Your task to perform on an android device: Open my contact list Image 0: 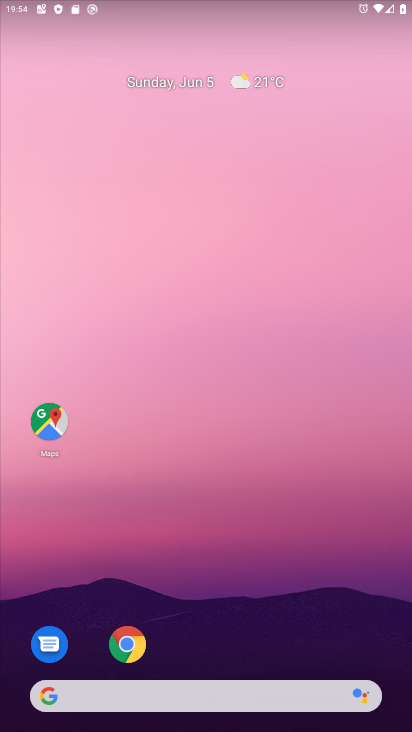
Step 0: drag from (110, 439) to (214, 206)
Your task to perform on an android device: Open my contact list Image 1: 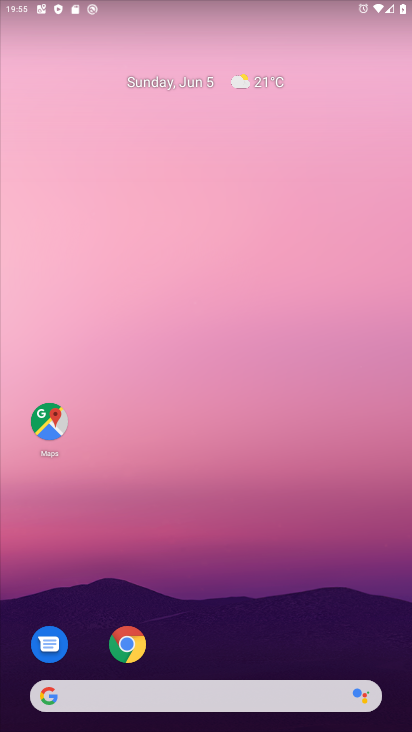
Step 1: press home button
Your task to perform on an android device: Open my contact list Image 2: 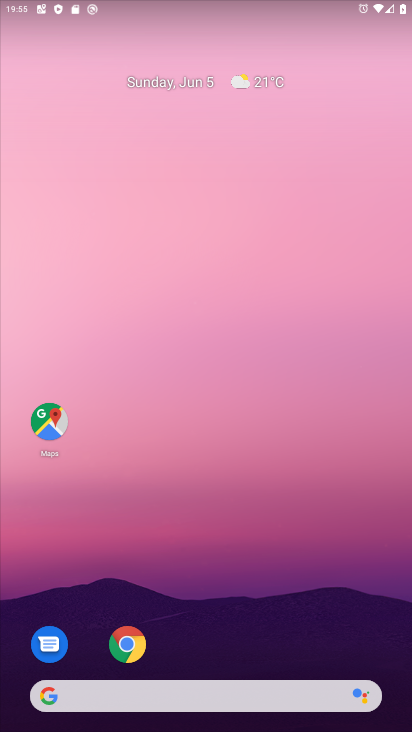
Step 2: drag from (56, 566) to (311, 157)
Your task to perform on an android device: Open my contact list Image 3: 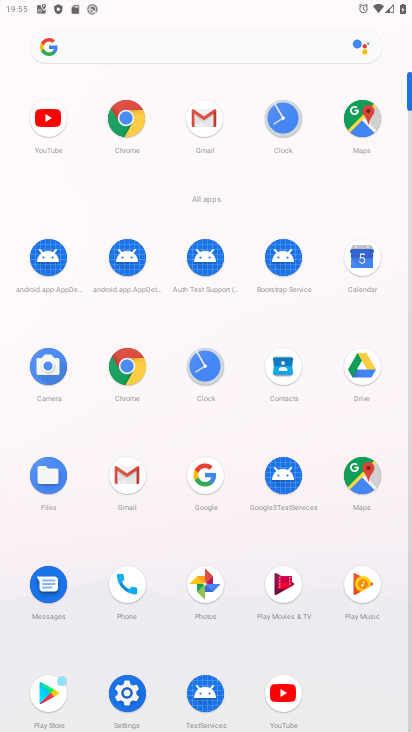
Step 3: click (125, 587)
Your task to perform on an android device: Open my contact list Image 4: 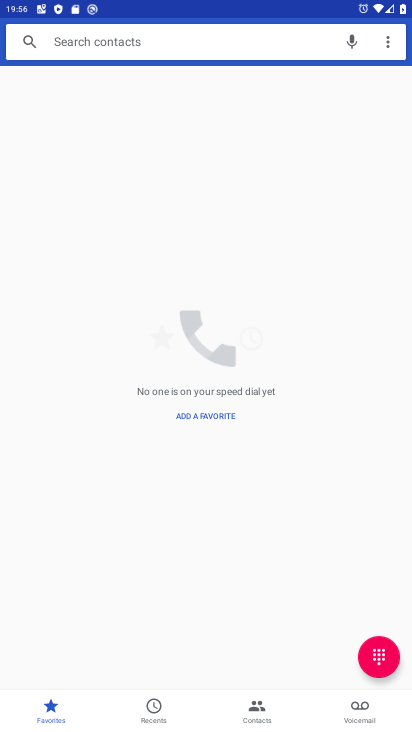
Step 4: click (262, 710)
Your task to perform on an android device: Open my contact list Image 5: 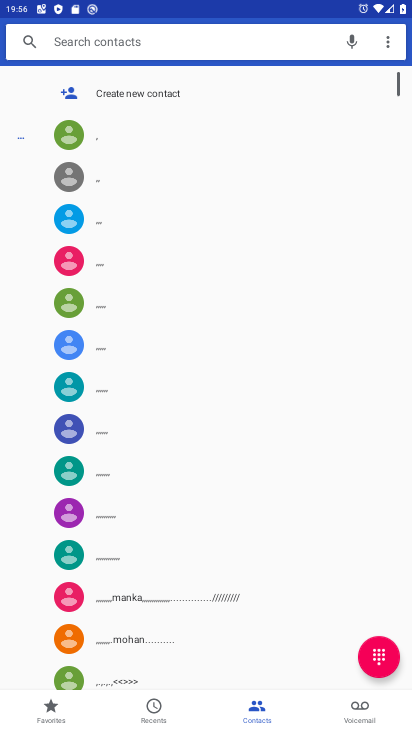
Step 5: task complete